Your task to perform on an android device: delete browsing data in the chrome app Image 0: 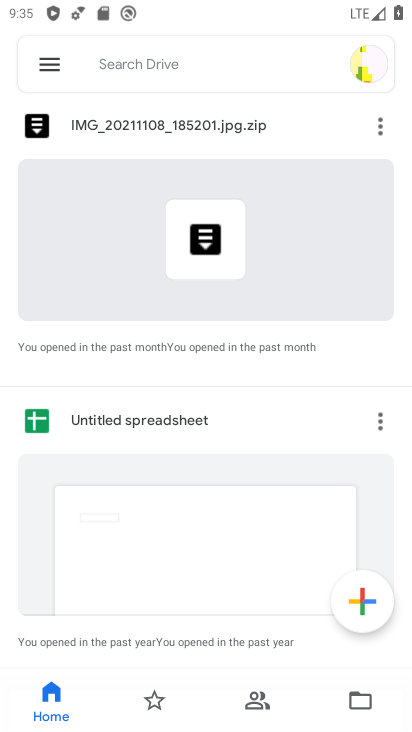
Step 0: press home button
Your task to perform on an android device: delete browsing data in the chrome app Image 1: 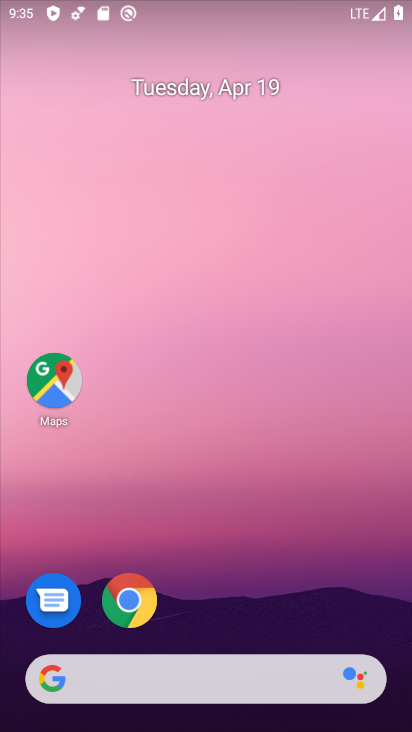
Step 1: click (127, 603)
Your task to perform on an android device: delete browsing data in the chrome app Image 2: 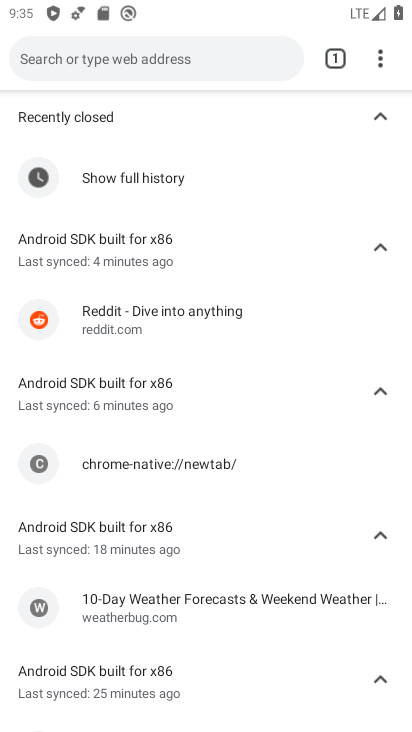
Step 2: click (384, 57)
Your task to perform on an android device: delete browsing data in the chrome app Image 3: 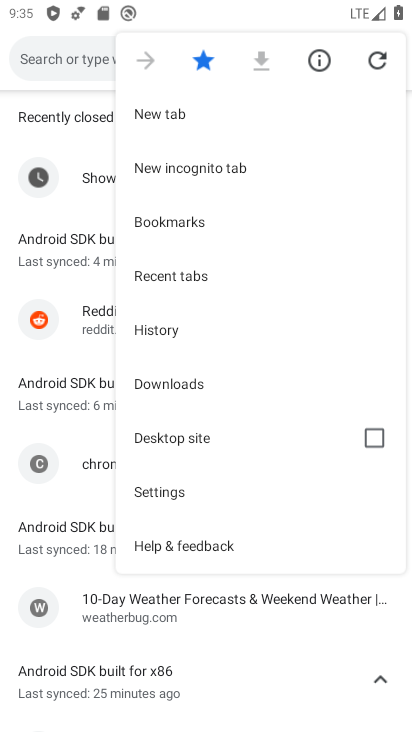
Step 3: click (267, 339)
Your task to perform on an android device: delete browsing data in the chrome app Image 4: 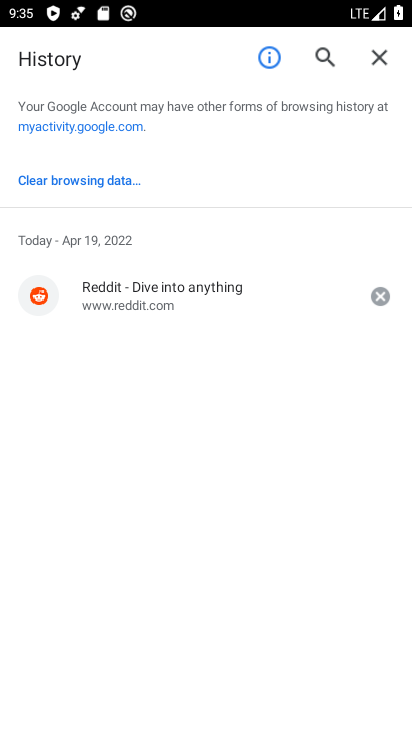
Step 4: click (115, 182)
Your task to perform on an android device: delete browsing data in the chrome app Image 5: 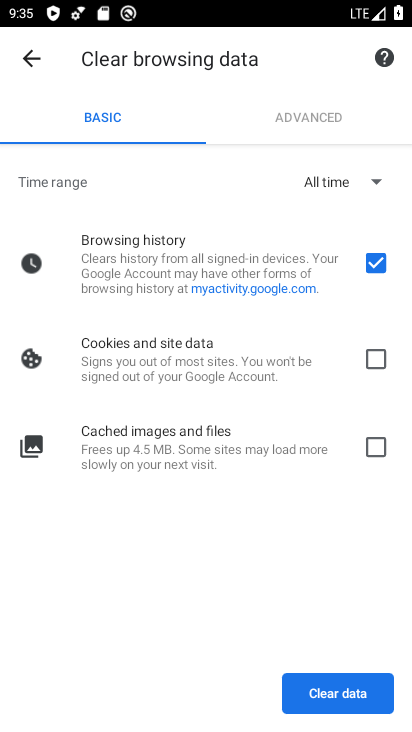
Step 5: click (373, 688)
Your task to perform on an android device: delete browsing data in the chrome app Image 6: 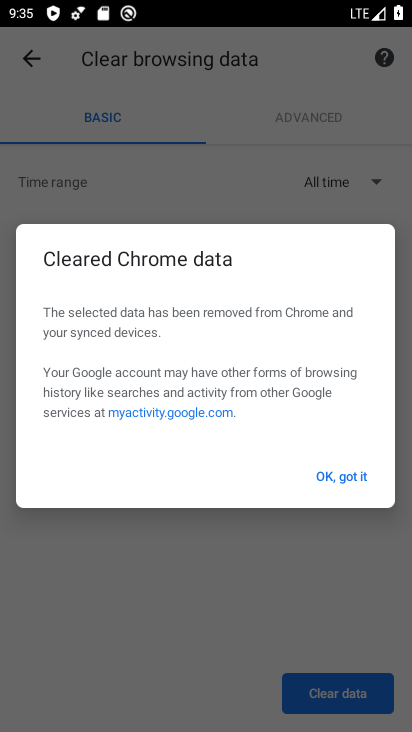
Step 6: click (356, 469)
Your task to perform on an android device: delete browsing data in the chrome app Image 7: 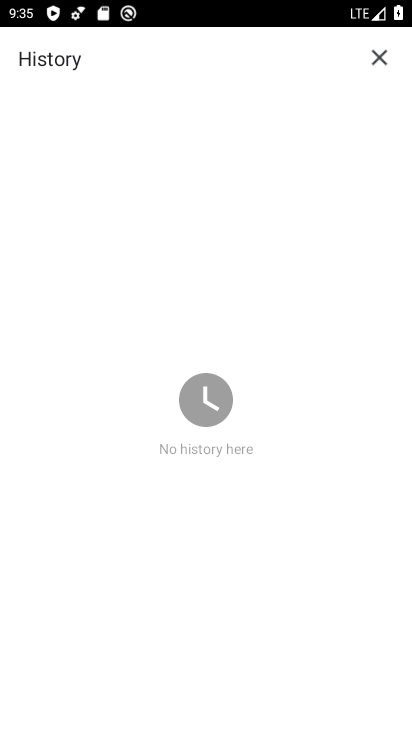
Step 7: task complete